Your task to perform on an android device: Open settings Image 0: 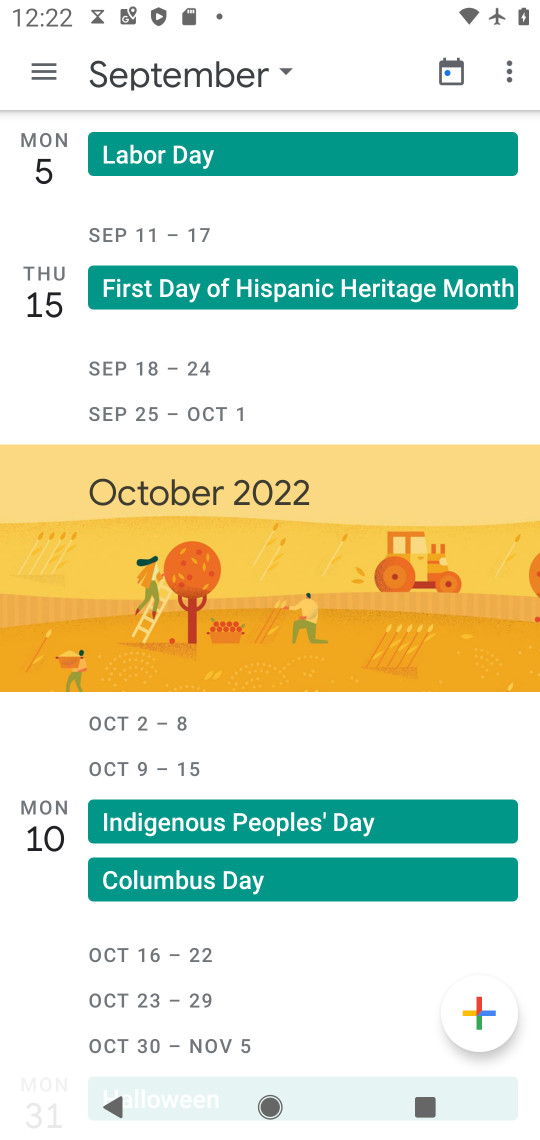
Step 0: press home button
Your task to perform on an android device: Open settings Image 1: 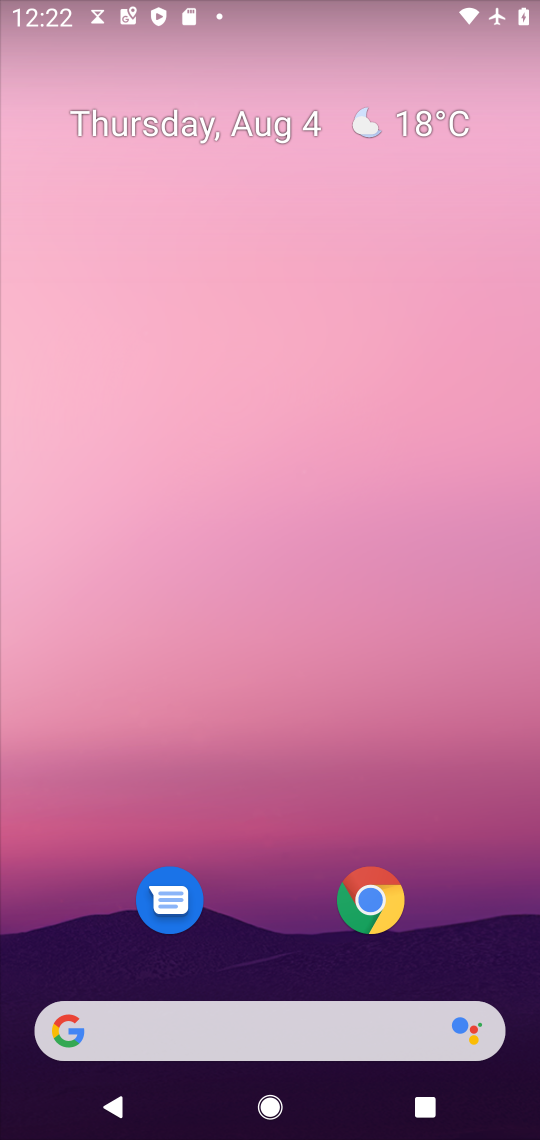
Step 1: drag from (305, 964) to (297, 421)
Your task to perform on an android device: Open settings Image 2: 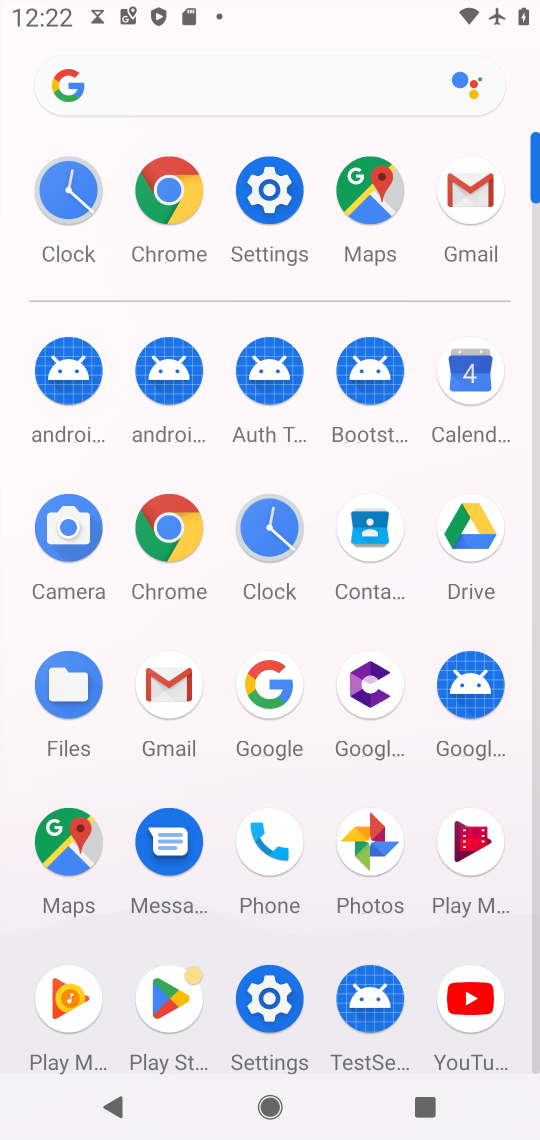
Step 2: click (266, 210)
Your task to perform on an android device: Open settings Image 3: 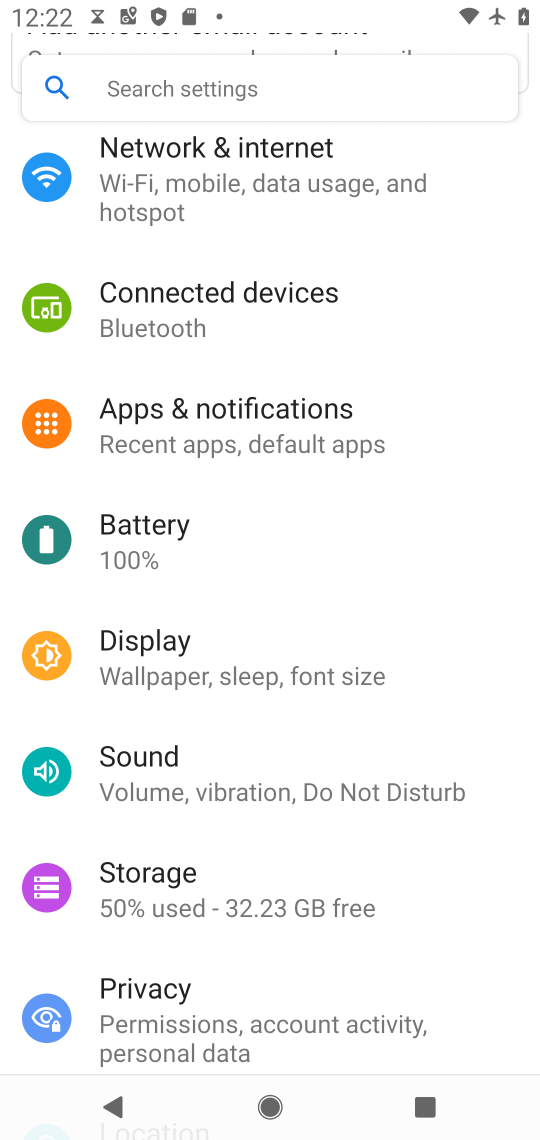
Step 3: task complete